Your task to perform on an android device: Open CNN.com Image 0: 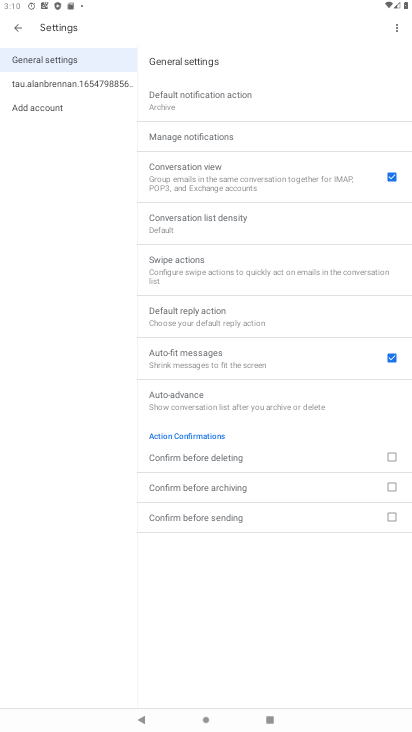
Step 0: press home button
Your task to perform on an android device: Open CNN.com Image 1: 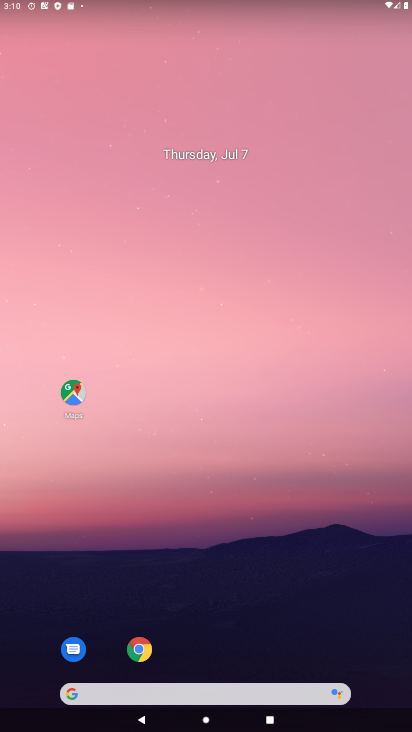
Step 1: drag from (221, 674) to (235, 46)
Your task to perform on an android device: Open CNN.com Image 2: 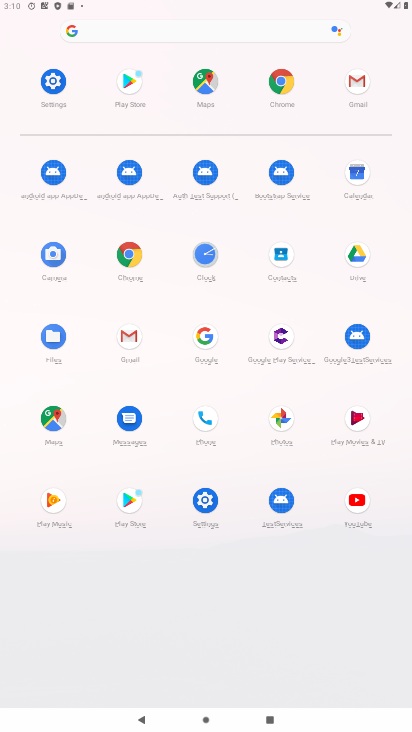
Step 2: click (127, 245)
Your task to perform on an android device: Open CNN.com Image 3: 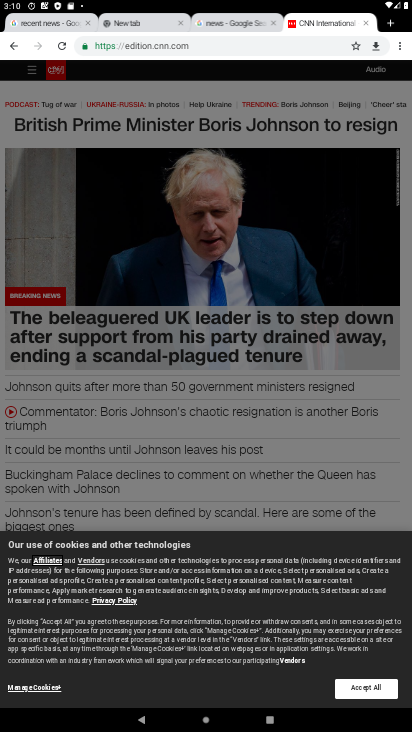
Step 3: task complete